Your task to perform on an android device: turn on location history Image 0: 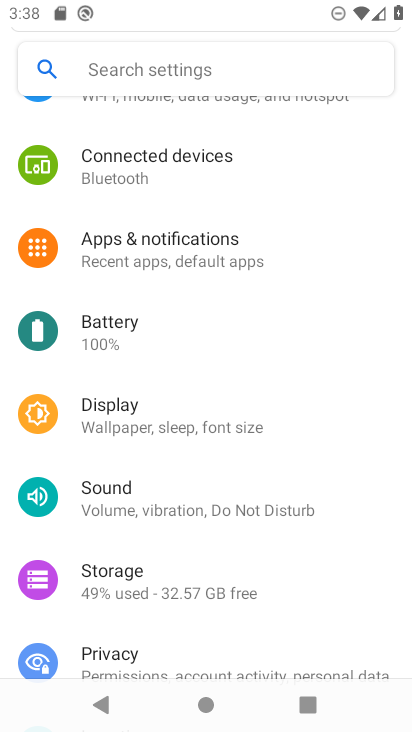
Step 0: drag from (224, 555) to (303, 224)
Your task to perform on an android device: turn on location history Image 1: 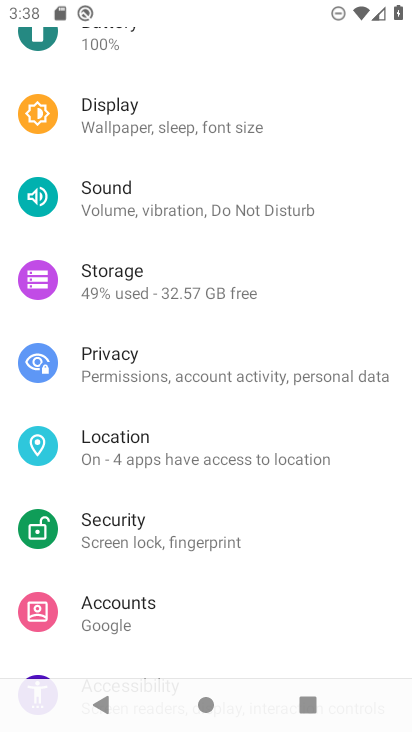
Step 1: click (145, 439)
Your task to perform on an android device: turn on location history Image 2: 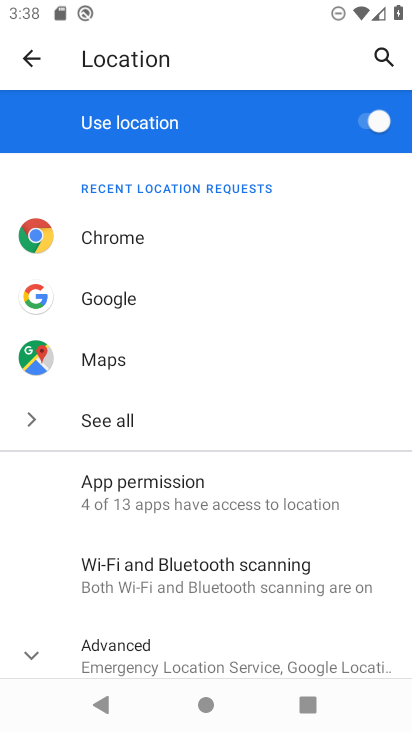
Step 2: drag from (190, 541) to (268, 327)
Your task to perform on an android device: turn on location history Image 3: 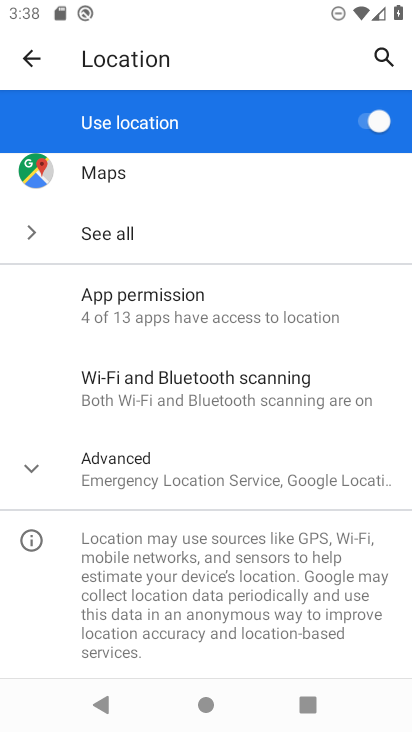
Step 3: click (200, 474)
Your task to perform on an android device: turn on location history Image 4: 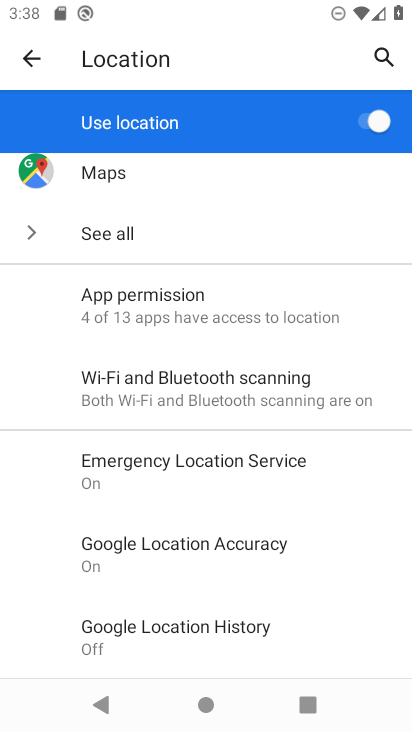
Step 4: click (210, 630)
Your task to perform on an android device: turn on location history Image 5: 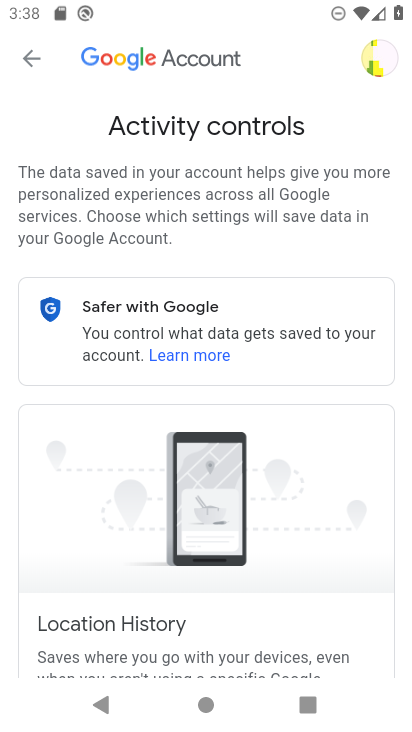
Step 5: drag from (265, 522) to (315, 144)
Your task to perform on an android device: turn on location history Image 6: 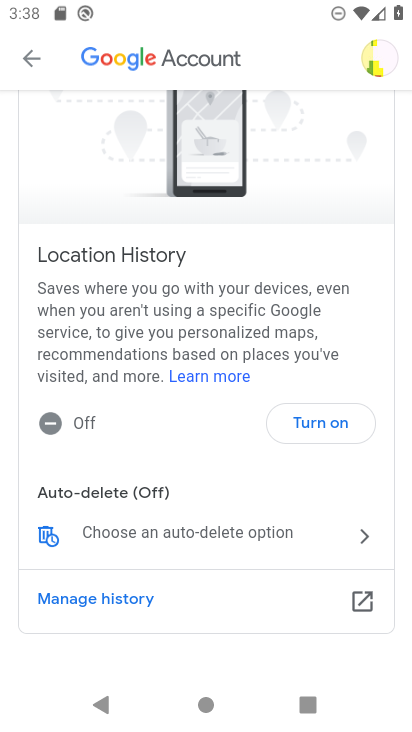
Step 6: click (315, 407)
Your task to perform on an android device: turn on location history Image 7: 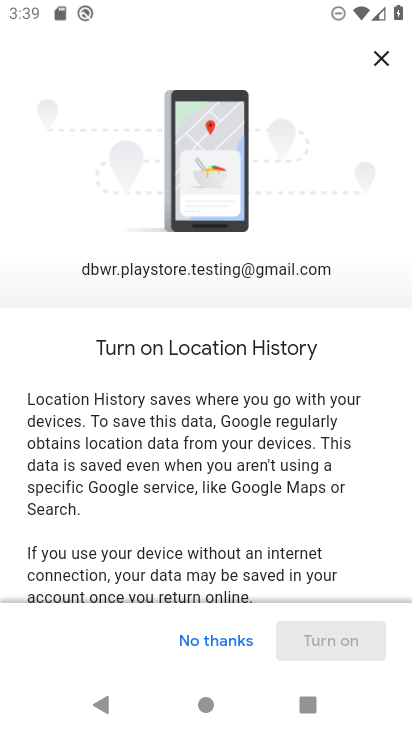
Step 7: task complete